Your task to perform on an android device: Open the Play Movies app and select the watchlist tab. Image 0: 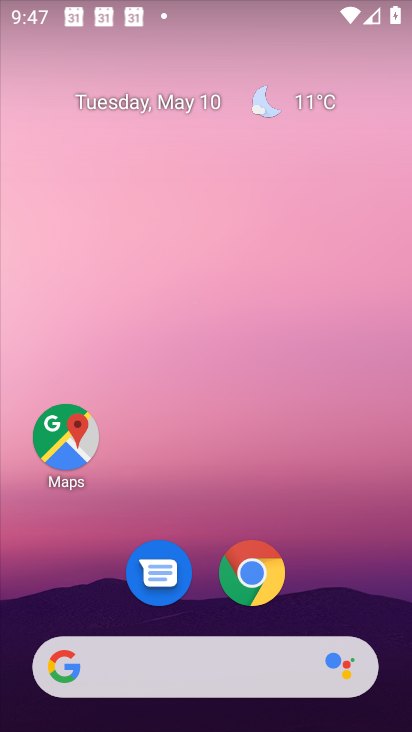
Step 0: drag from (291, 561) to (313, 247)
Your task to perform on an android device: Open the Play Movies app and select the watchlist tab. Image 1: 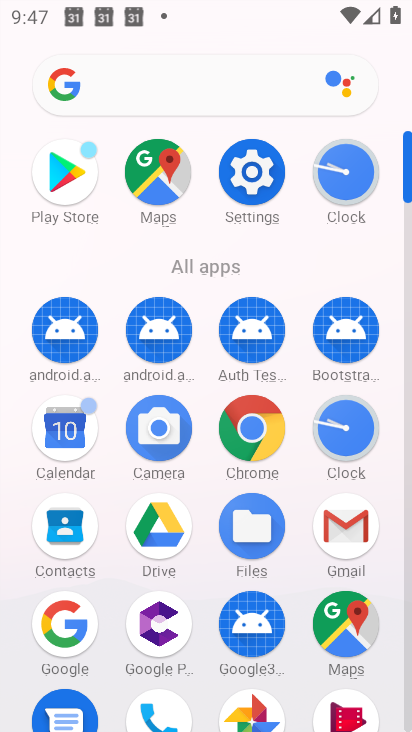
Step 1: click (334, 702)
Your task to perform on an android device: Open the Play Movies app and select the watchlist tab. Image 2: 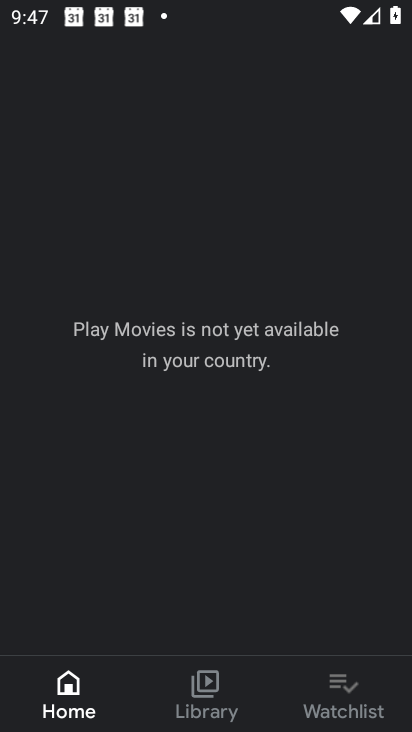
Step 2: click (316, 719)
Your task to perform on an android device: Open the Play Movies app and select the watchlist tab. Image 3: 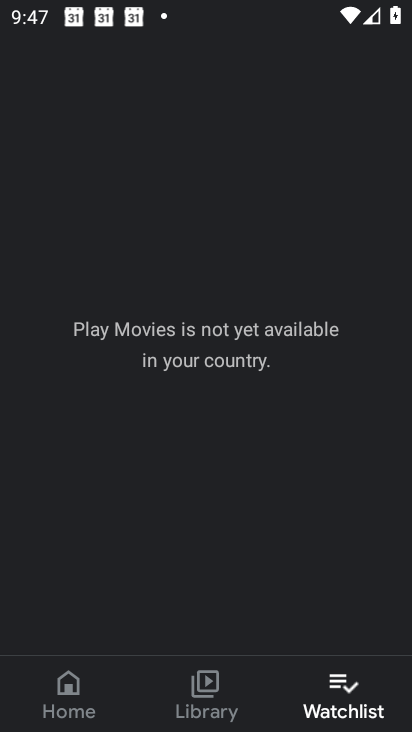
Step 3: task complete